Your task to perform on an android device: toggle airplane mode Image 0: 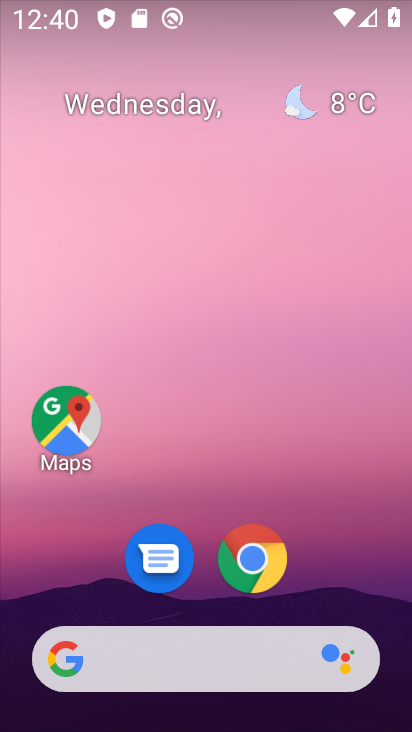
Step 0: drag from (293, 493) to (193, 5)
Your task to perform on an android device: toggle airplane mode Image 1: 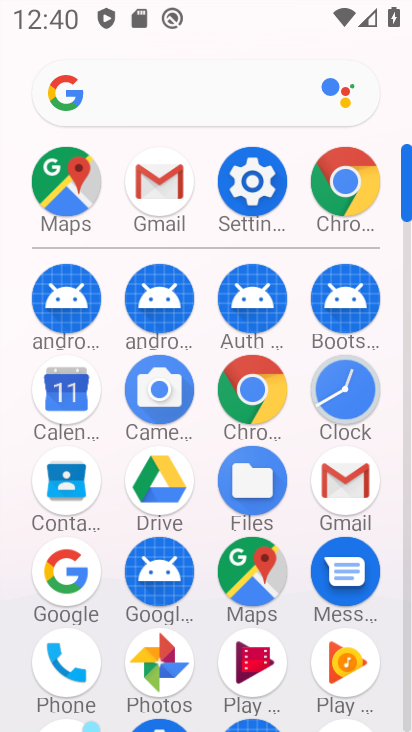
Step 1: drag from (7, 542) to (16, 167)
Your task to perform on an android device: toggle airplane mode Image 2: 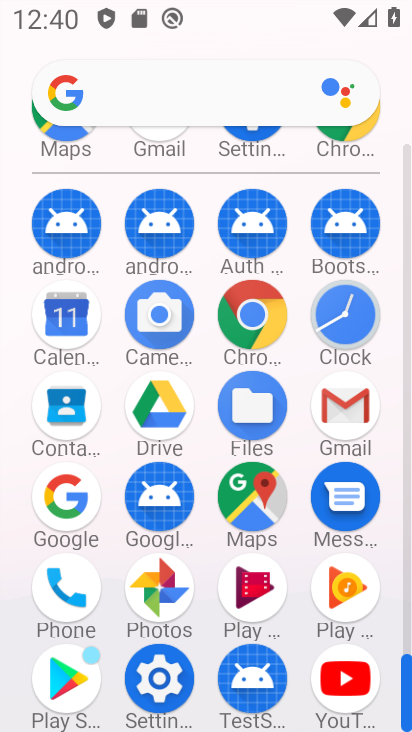
Step 2: click (159, 672)
Your task to perform on an android device: toggle airplane mode Image 3: 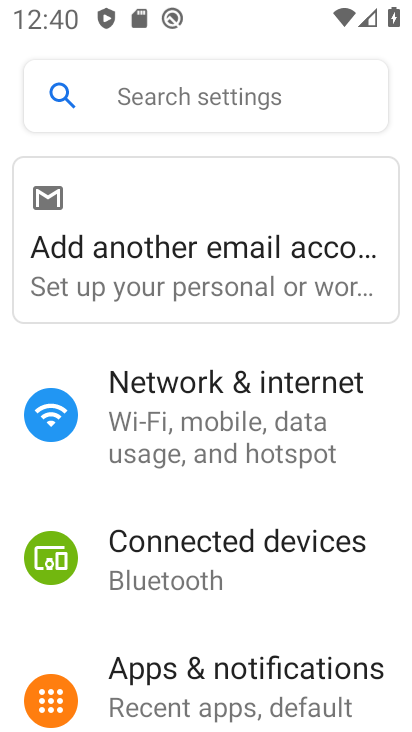
Step 3: click (218, 427)
Your task to perform on an android device: toggle airplane mode Image 4: 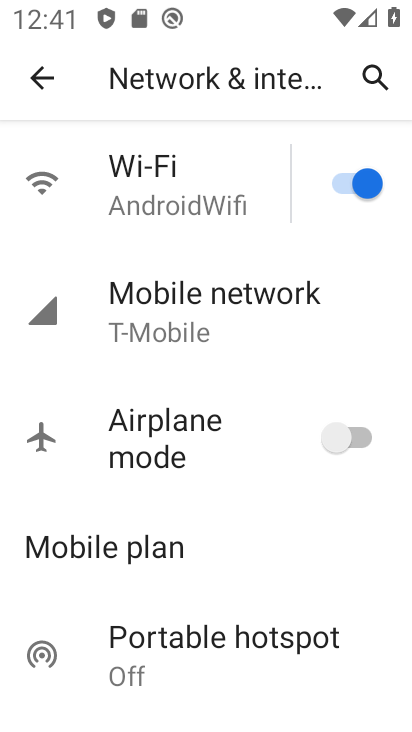
Step 4: click (352, 434)
Your task to perform on an android device: toggle airplane mode Image 5: 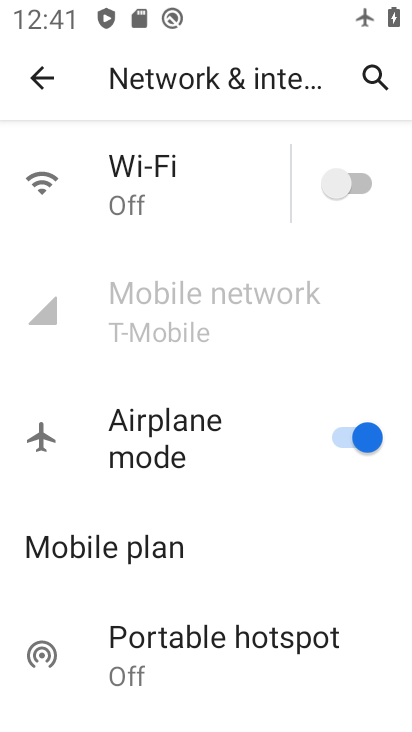
Step 5: task complete